Your task to perform on an android device: Go to location settings Image 0: 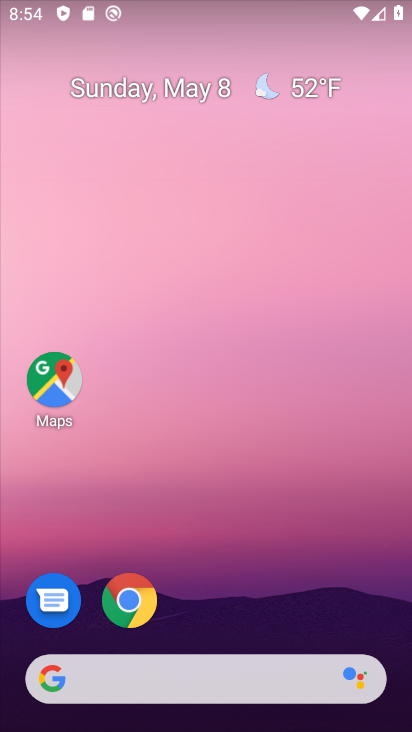
Step 0: drag from (236, 568) to (262, 116)
Your task to perform on an android device: Go to location settings Image 1: 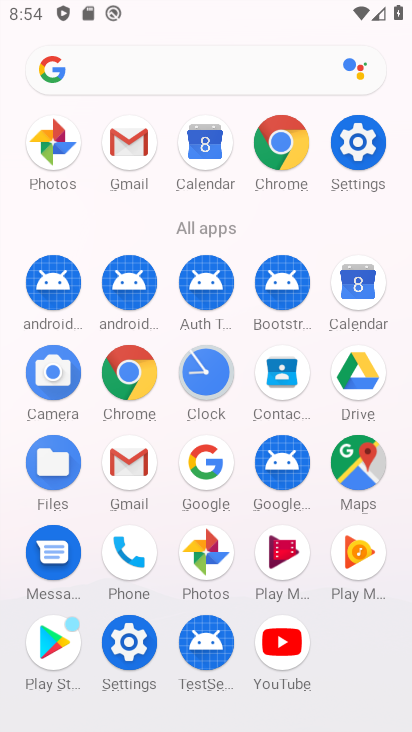
Step 1: click (364, 138)
Your task to perform on an android device: Go to location settings Image 2: 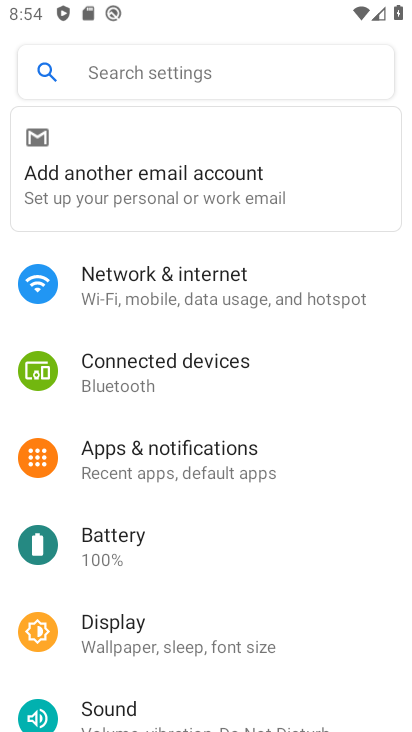
Step 2: drag from (174, 678) to (196, 236)
Your task to perform on an android device: Go to location settings Image 3: 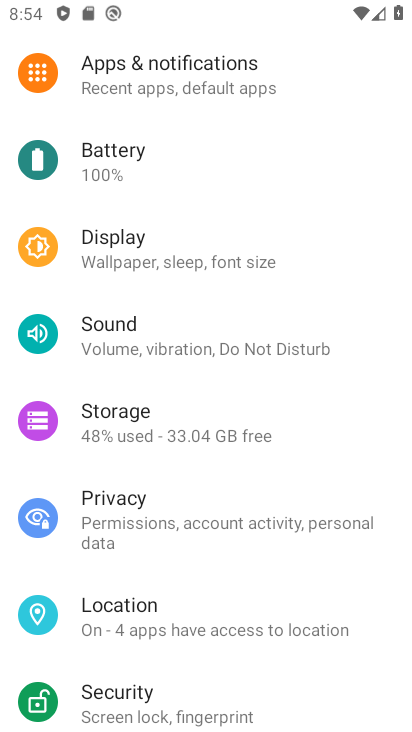
Step 3: click (127, 618)
Your task to perform on an android device: Go to location settings Image 4: 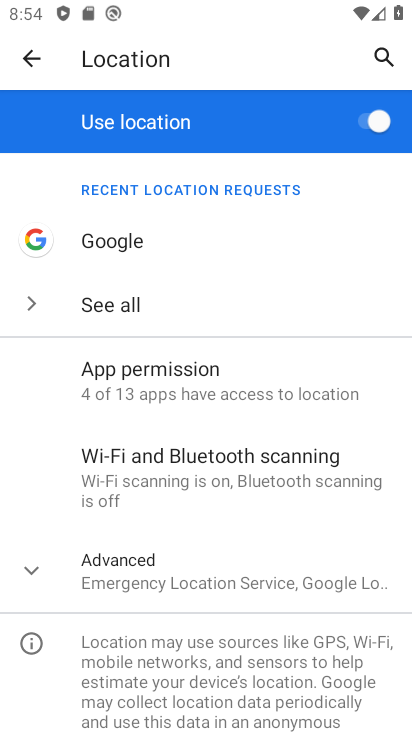
Step 4: task complete